Your task to perform on an android device: manage bookmarks in the chrome app Image 0: 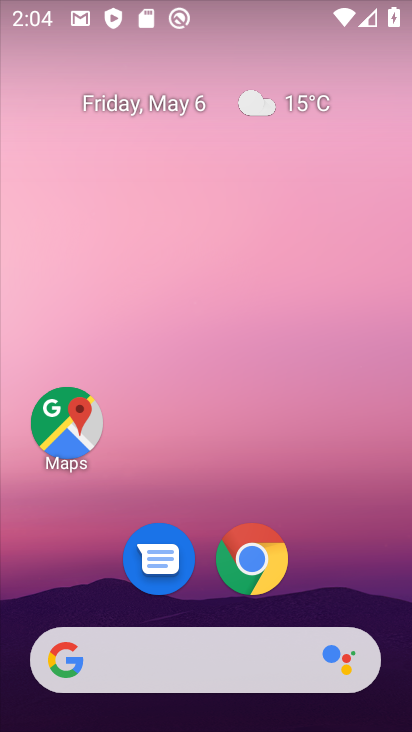
Step 0: click (246, 551)
Your task to perform on an android device: manage bookmarks in the chrome app Image 1: 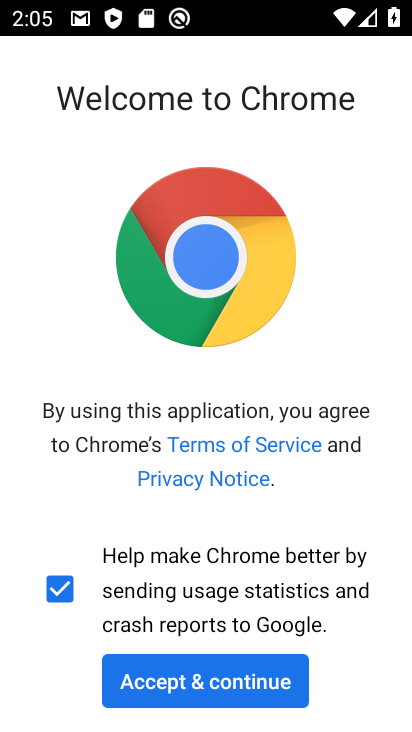
Step 1: click (215, 677)
Your task to perform on an android device: manage bookmarks in the chrome app Image 2: 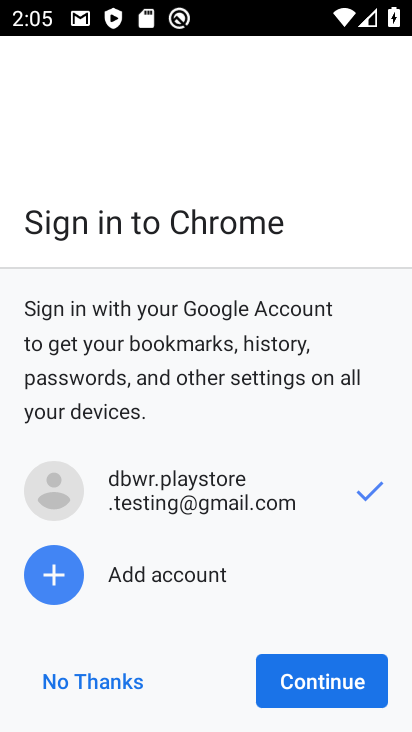
Step 2: click (325, 676)
Your task to perform on an android device: manage bookmarks in the chrome app Image 3: 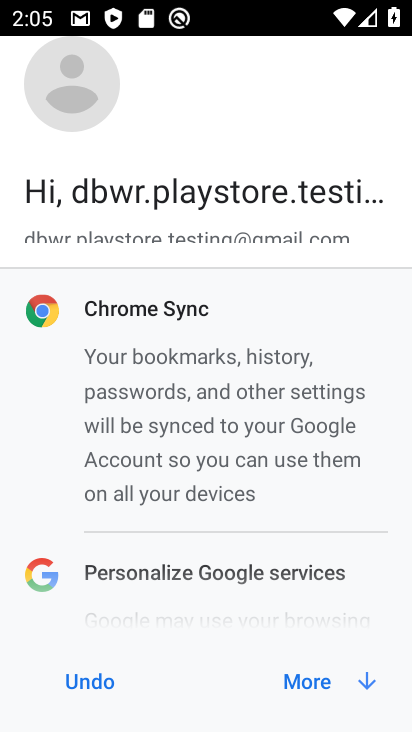
Step 3: click (312, 681)
Your task to perform on an android device: manage bookmarks in the chrome app Image 4: 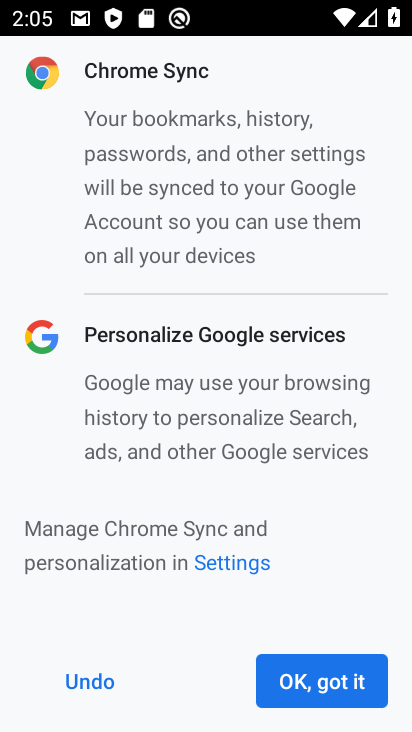
Step 4: click (312, 681)
Your task to perform on an android device: manage bookmarks in the chrome app Image 5: 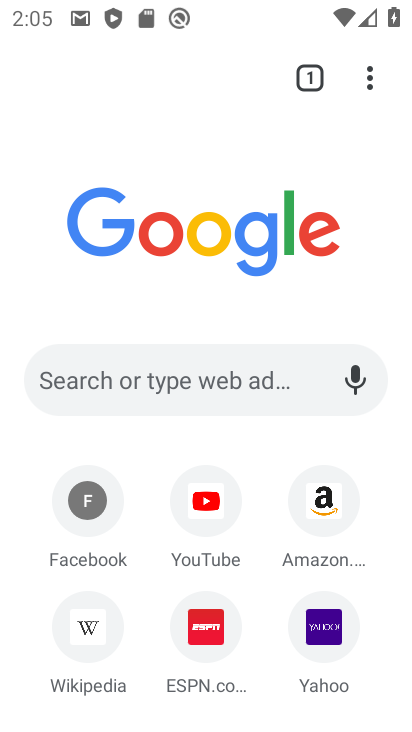
Step 5: click (371, 74)
Your task to perform on an android device: manage bookmarks in the chrome app Image 6: 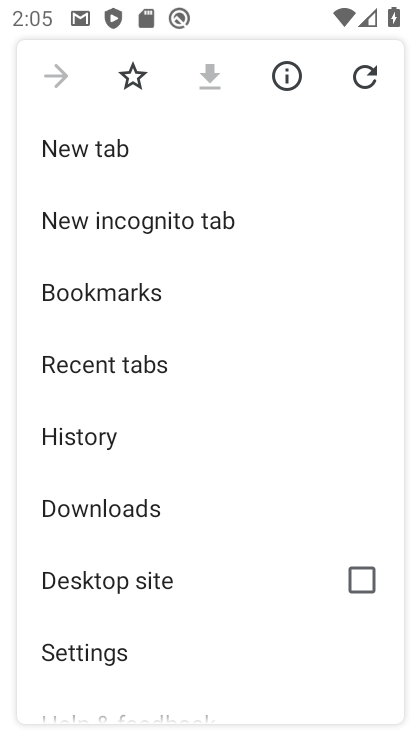
Step 6: click (175, 289)
Your task to perform on an android device: manage bookmarks in the chrome app Image 7: 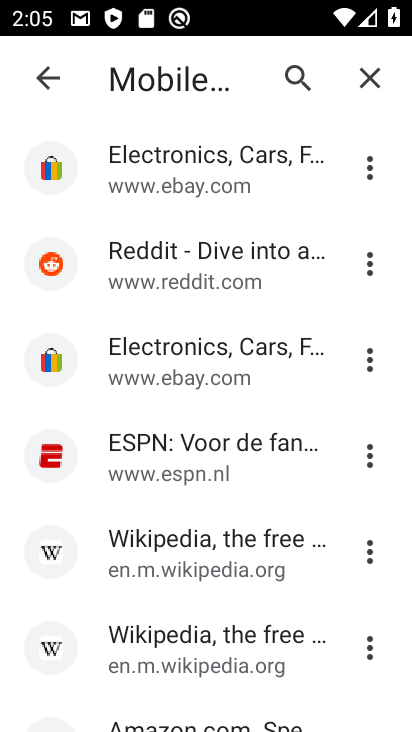
Step 7: click (377, 438)
Your task to perform on an android device: manage bookmarks in the chrome app Image 8: 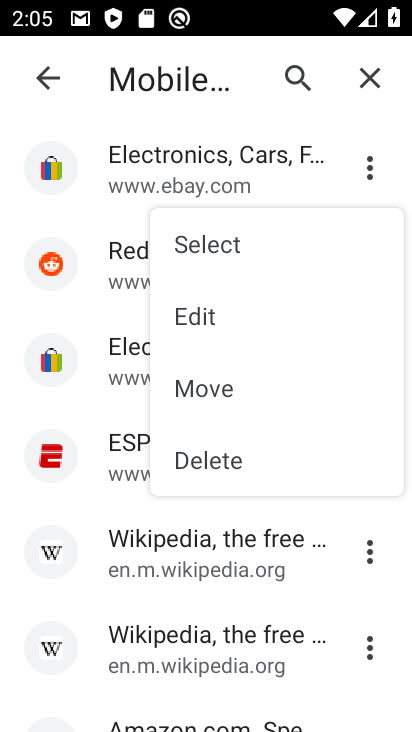
Step 8: click (256, 454)
Your task to perform on an android device: manage bookmarks in the chrome app Image 9: 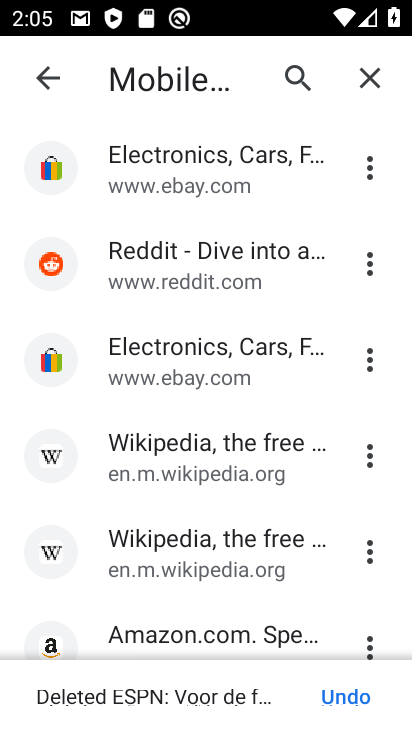
Step 9: task complete